Your task to perform on an android device: install app "HBO Max: Stream TV & Movies" Image 0: 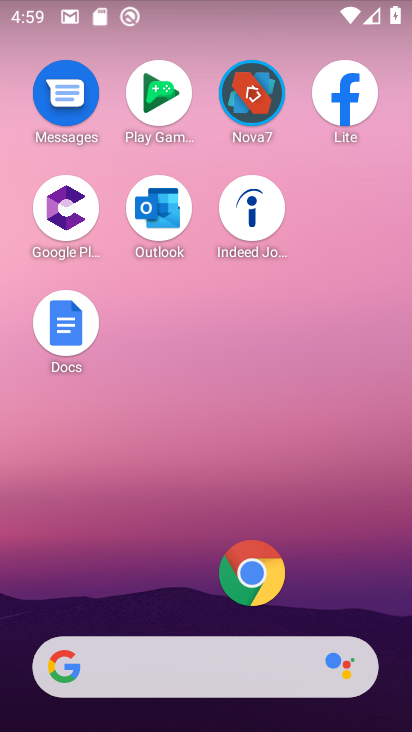
Step 0: drag from (187, 584) to (204, 10)
Your task to perform on an android device: install app "HBO Max: Stream TV & Movies" Image 1: 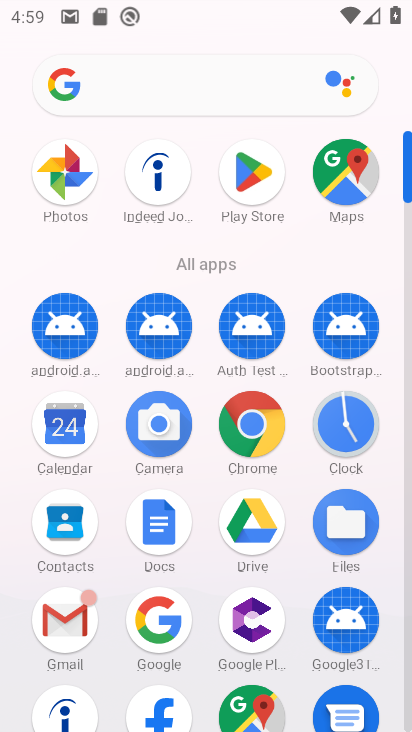
Step 1: click (247, 168)
Your task to perform on an android device: install app "HBO Max: Stream TV & Movies" Image 2: 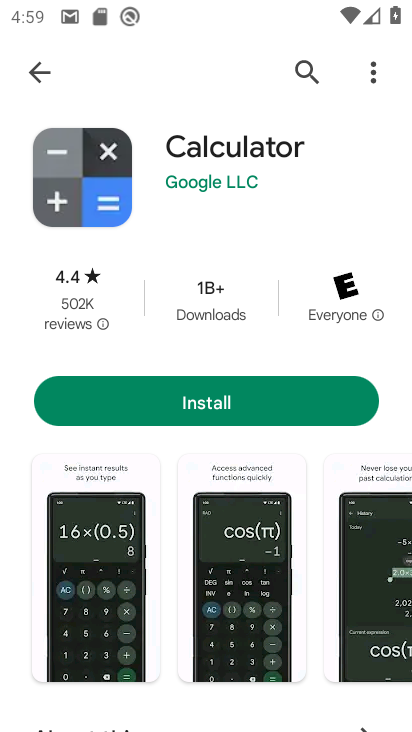
Step 2: click (37, 72)
Your task to perform on an android device: install app "HBO Max: Stream TV & Movies" Image 3: 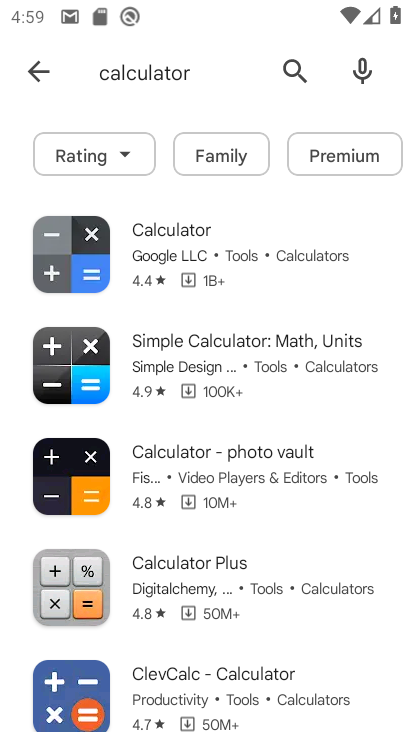
Step 3: click (33, 75)
Your task to perform on an android device: install app "HBO Max: Stream TV & Movies" Image 4: 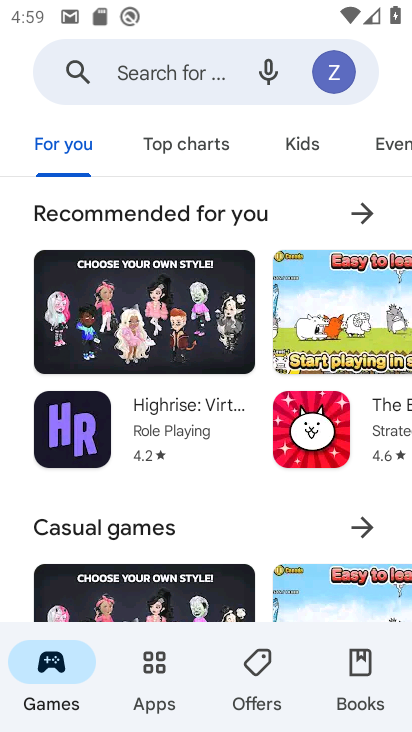
Step 4: click (145, 75)
Your task to perform on an android device: install app "HBO Max: Stream TV & Movies" Image 5: 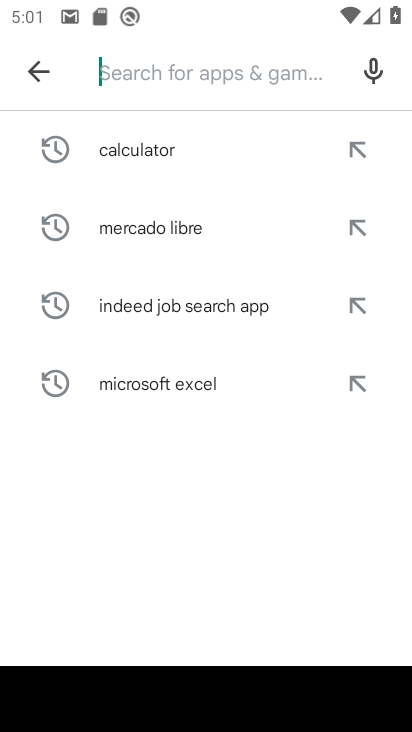
Step 5: type "HBO Max: Stream TV & Movies"
Your task to perform on an android device: install app "HBO Max: Stream TV & Movies" Image 6: 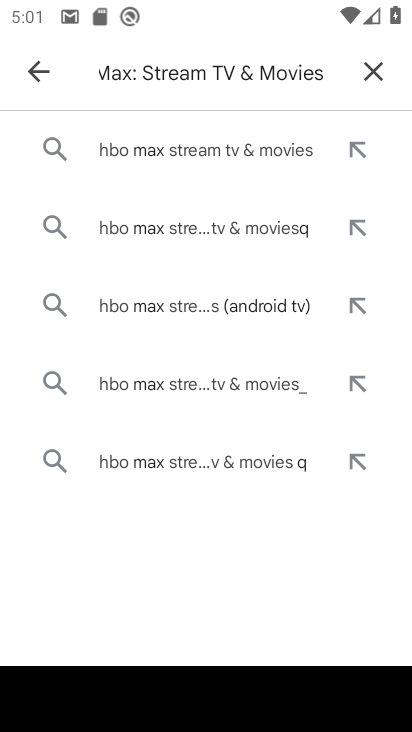
Step 6: click (219, 139)
Your task to perform on an android device: install app "HBO Max: Stream TV & Movies" Image 7: 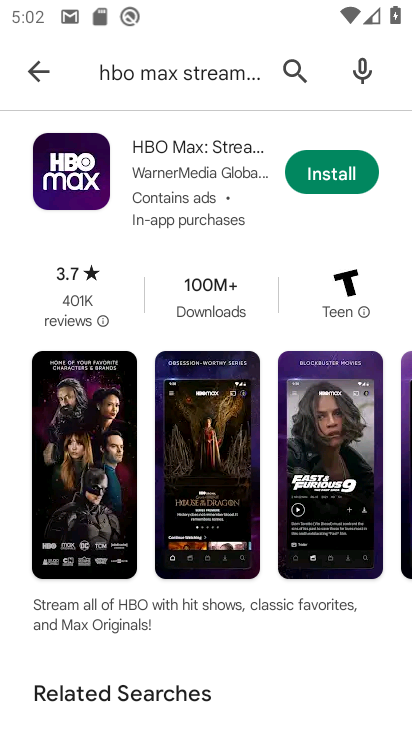
Step 7: click (339, 173)
Your task to perform on an android device: install app "HBO Max: Stream TV & Movies" Image 8: 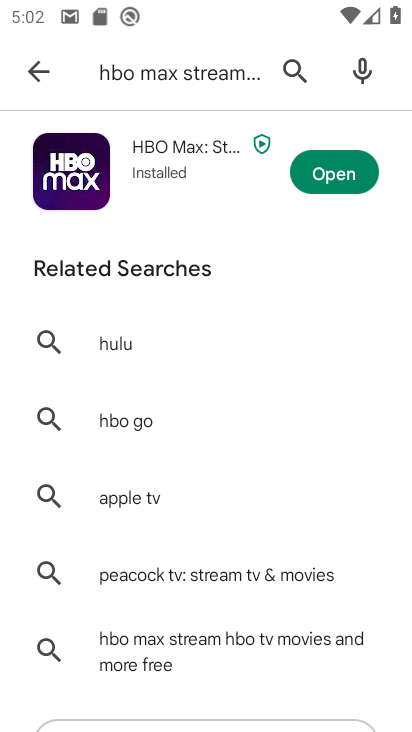
Step 8: click (339, 173)
Your task to perform on an android device: install app "HBO Max: Stream TV & Movies" Image 9: 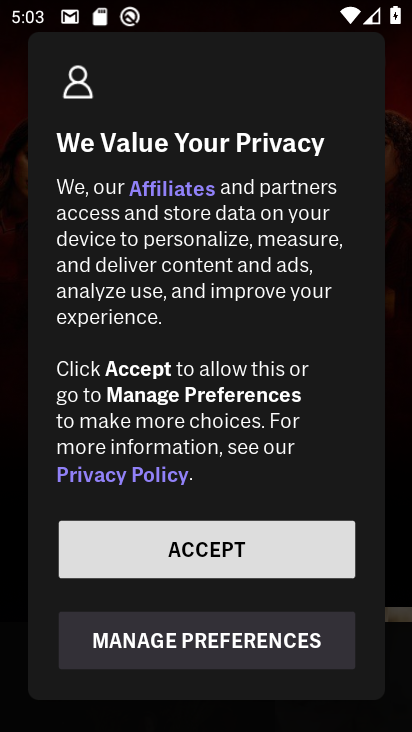
Step 9: task complete